Your task to perform on an android device: open device folders in google photos Image 0: 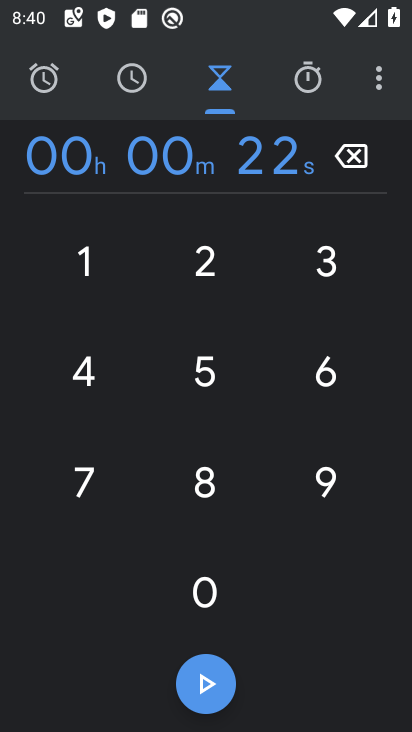
Step 0: press home button
Your task to perform on an android device: open device folders in google photos Image 1: 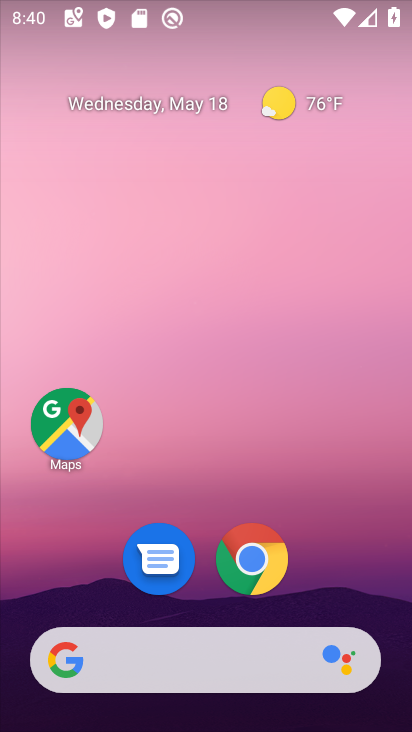
Step 1: drag from (194, 587) to (189, 123)
Your task to perform on an android device: open device folders in google photos Image 2: 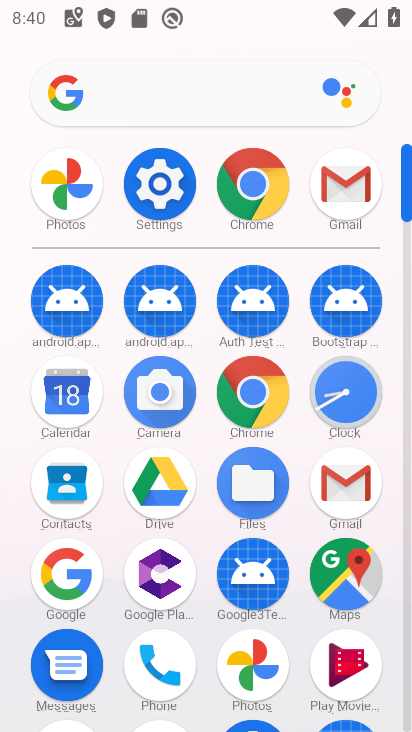
Step 2: click (70, 183)
Your task to perform on an android device: open device folders in google photos Image 3: 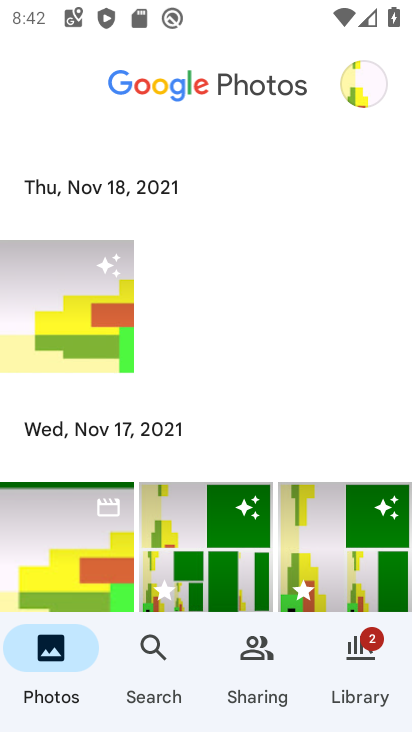
Step 3: task complete